Your task to perform on an android device: Open Google Chrome and click the shortcut for Amazon.com Image 0: 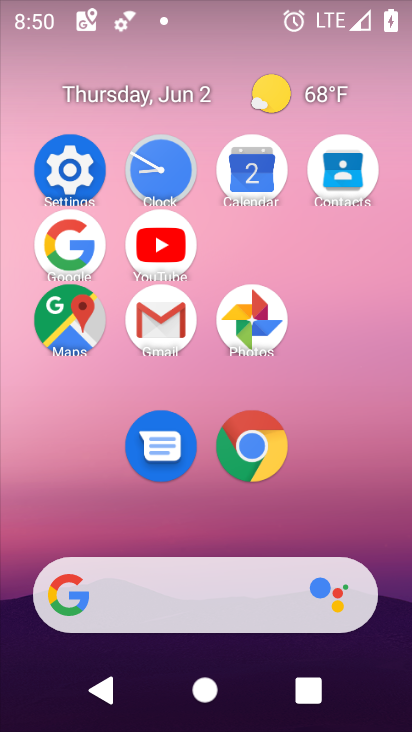
Step 0: click (251, 452)
Your task to perform on an android device: Open Google Chrome and click the shortcut for Amazon.com Image 1: 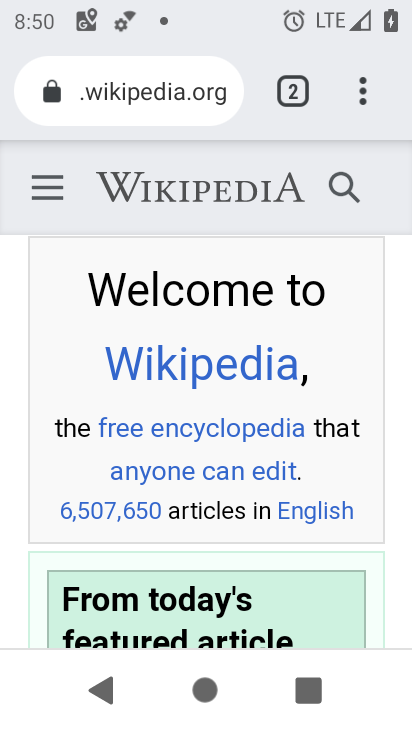
Step 1: click (313, 83)
Your task to perform on an android device: Open Google Chrome and click the shortcut for Amazon.com Image 2: 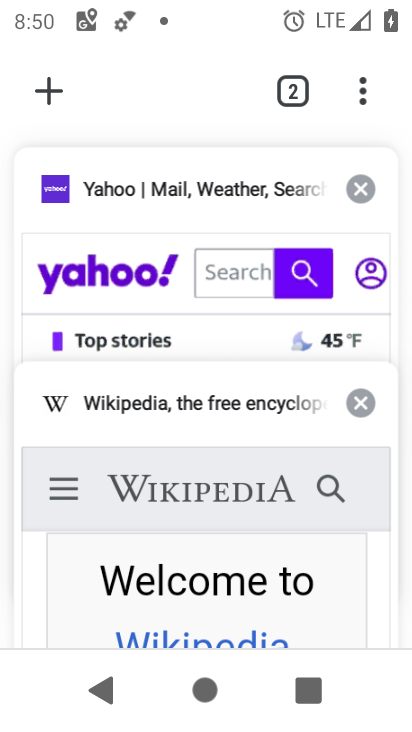
Step 2: click (61, 102)
Your task to perform on an android device: Open Google Chrome and click the shortcut for Amazon.com Image 3: 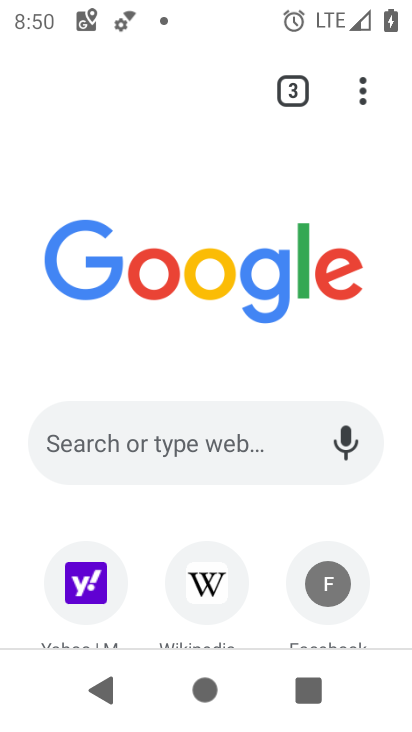
Step 3: drag from (215, 531) to (216, 240)
Your task to perform on an android device: Open Google Chrome and click the shortcut for Amazon.com Image 4: 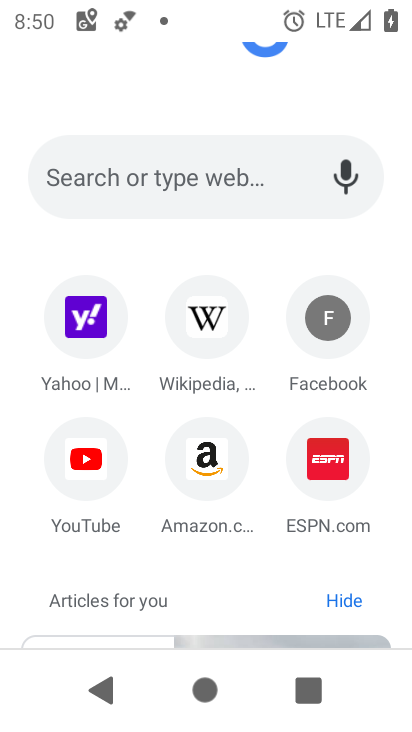
Step 4: click (204, 444)
Your task to perform on an android device: Open Google Chrome and click the shortcut for Amazon.com Image 5: 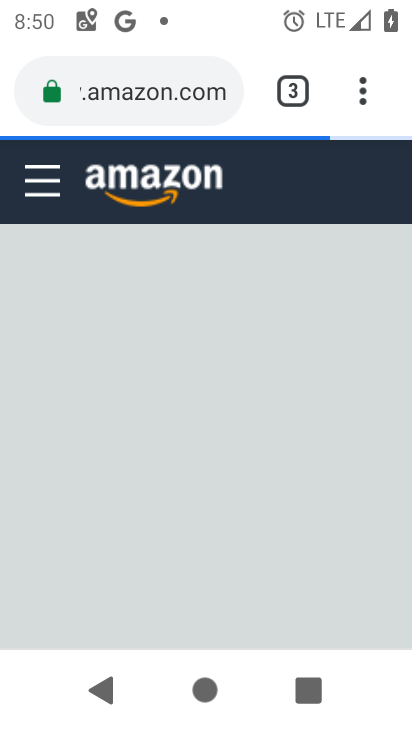
Step 5: click (366, 94)
Your task to perform on an android device: Open Google Chrome and click the shortcut for Amazon.com Image 6: 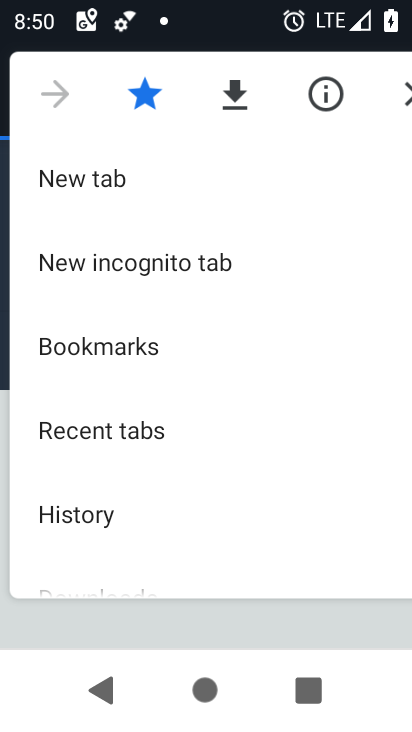
Step 6: drag from (247, 469) to (299, 144)
Your task to perform on an android device: Open Google Chrome and click the shortcut for Amazon.com Image 7: 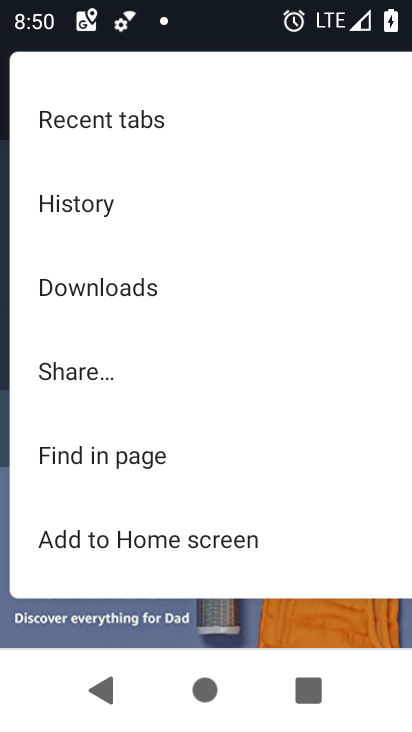
Step 7: click (271, 539)
Your task to perform on an android device: Open Google Chrome and click the shortcut for Amazon.com Image 8: 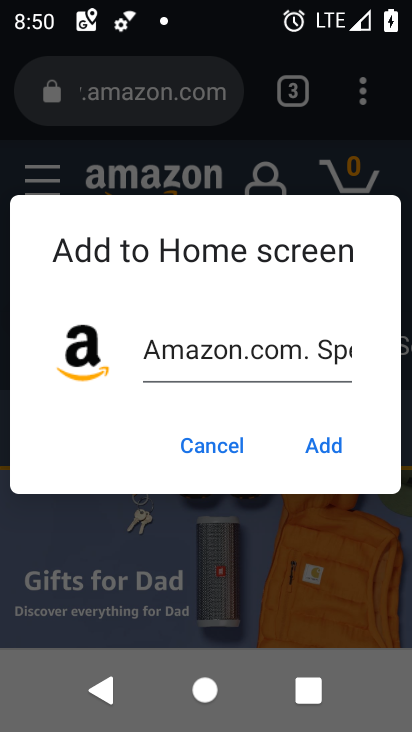
Step 8: click (328, 444)
Your task to perform on an android device: Open Google Chrome and click the shortcut for Amazon.com Image 9: 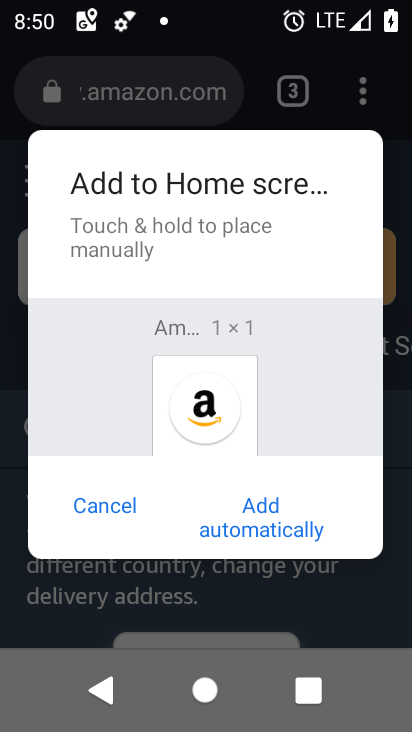
Step 9: click (298, 503)
Your task to perform on an android device: Open Google Chrome and click the shortcut for Amazon.com Image 10: 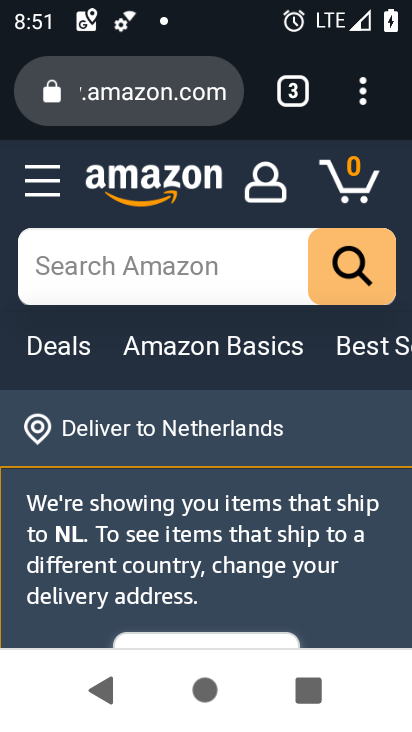
Step 10: click (382, 92)
Your task to perform on an android device: Open Google Chrome and click the shortcut for Amazon.com Image 11: 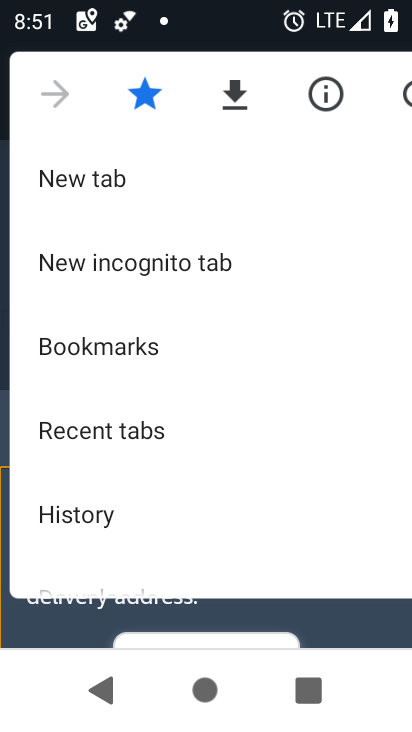
Step 11: drag from (174, 406) to (160, 172)
Your task to perform on an android device: Open Google Chrome and click the shortcut for Amazon.com Image 12: 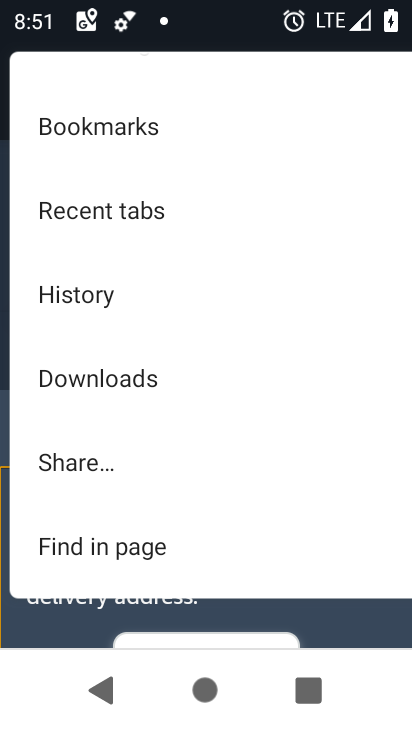
Step 12: drag from (154, 484) to (235, 88)
Your task to perform on an android device: Open Google Chrome and click the shortcut for Amazon.com Image 13: 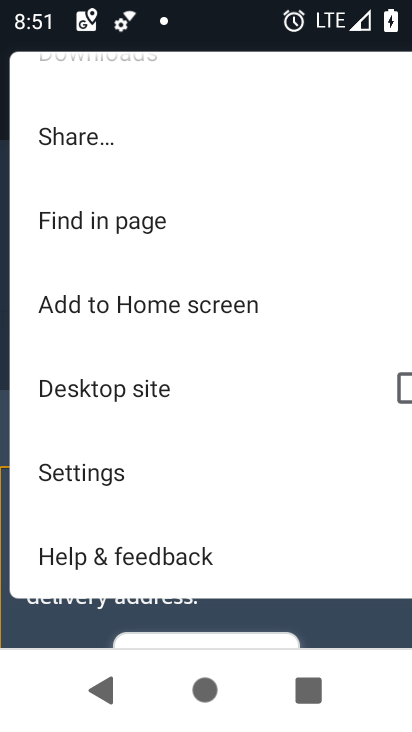
Step 13: click (256, 326)
Your task to perform on an android device: Open Google Chrome and click the shortcut for Amazon.com Image 14: 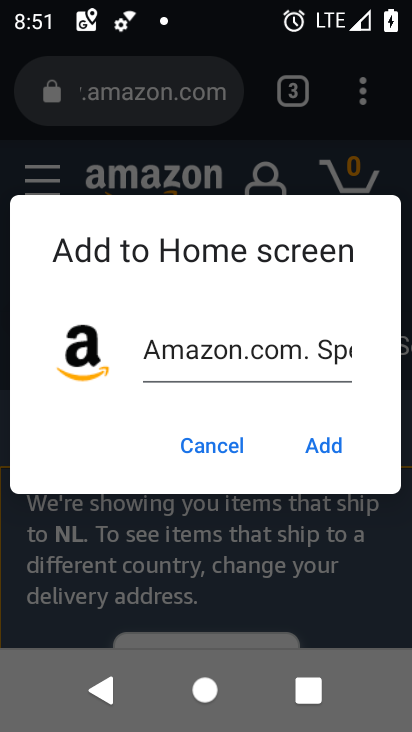
Step 14: click (328, 437)
Your task to perform on an android device: Open Google Chrome and click the shortcut for Amazon.com Image 15: 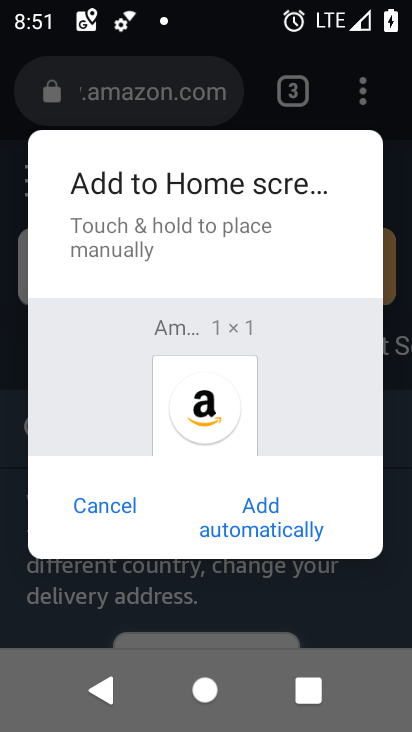
Step 15: click (275, 524)
Your task to perform on an android device: Open Google Chrome and click the shortcut for Amazon.com Image 16: 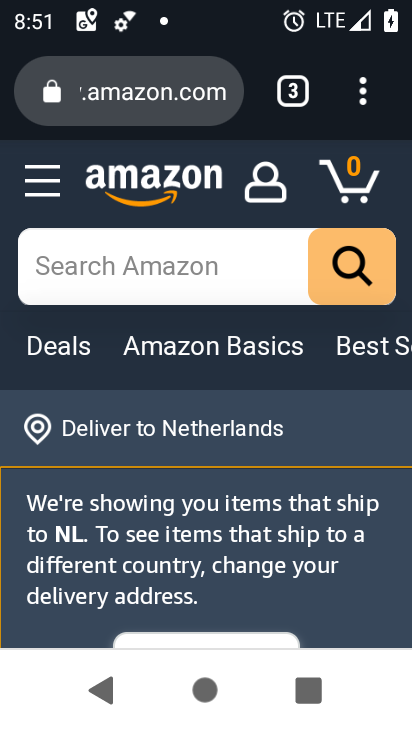
Step 16: task complete